Your task to perform on an android device: Show me popular videos on Youtube Image 0: 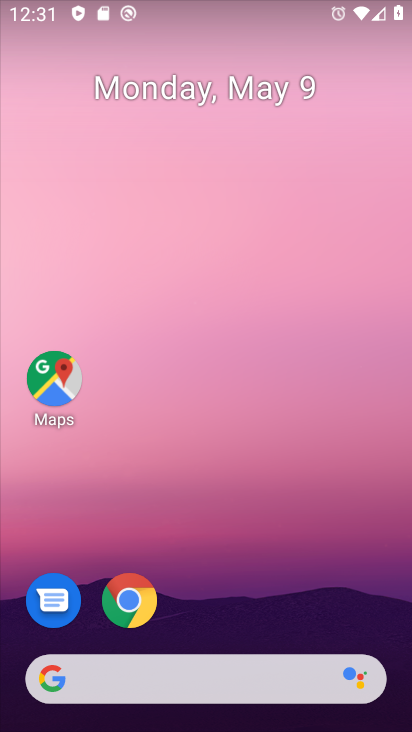
Step 0: drag from (176, 596) to (160, 93)
Your task to perform on an android device: Show me popular videos on Youtube Image 1: 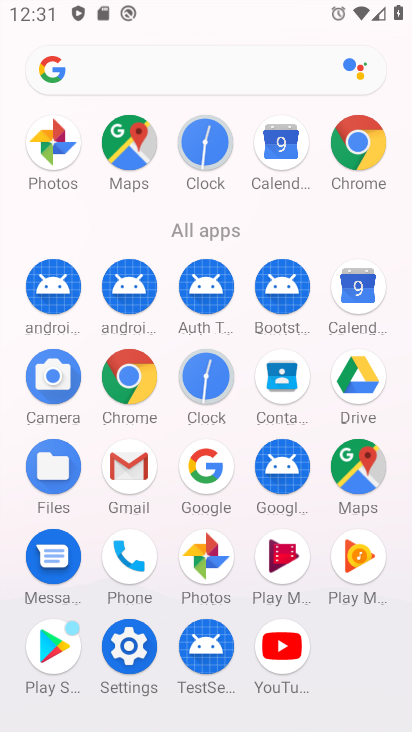
Step 1: drag from (187, 562) to (187, 182)
Your task to perform on an android device: Show me popular videos on Youtube Image 2: 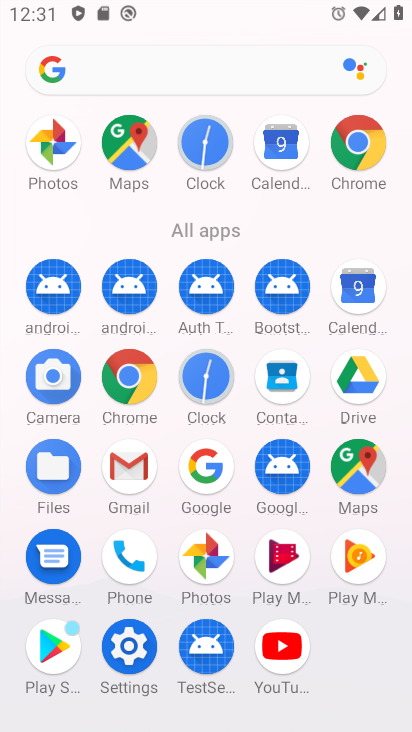
Step 2: click (283, 649)
Your task to perform on an android device: Show me popular videos on Youtube Image 3: 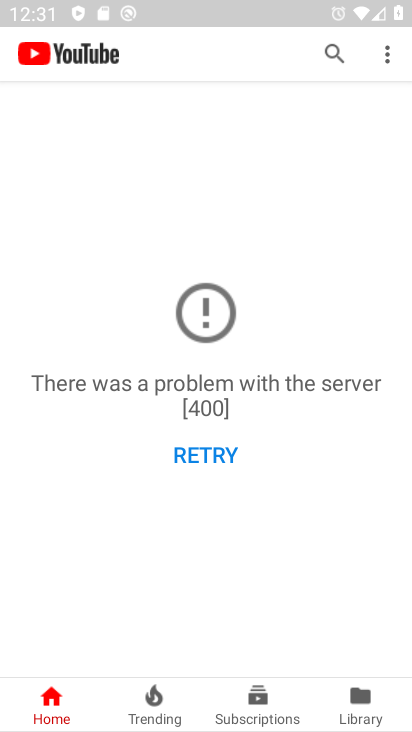
Step 3: click (193, 453)
Your task to perform on an android device: Show me popular videos on Youtube Image 4: 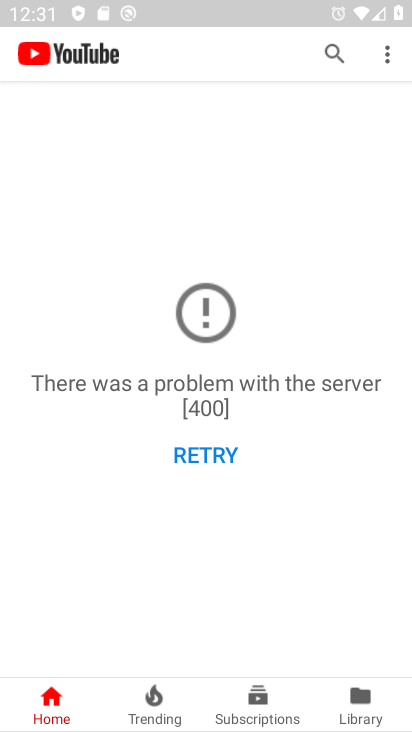
Step 4: click (191, 454)
Your task to perform on an android device: Show me popular videos on Youtube Image 5: 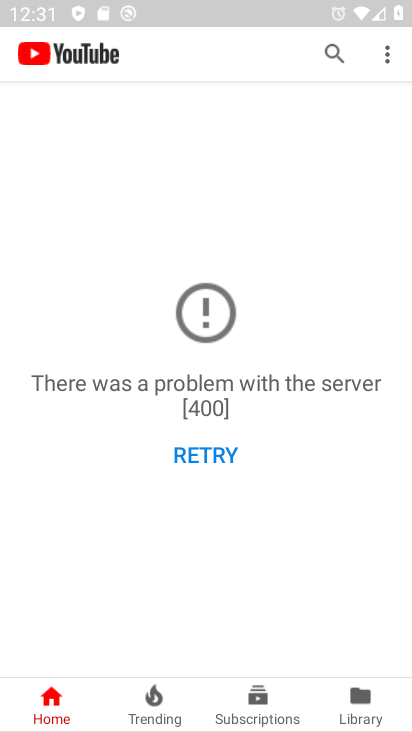
Step 5: click (190, 452)
Your task to perform on an android device: Show me popular videos on Youtube Image 6: 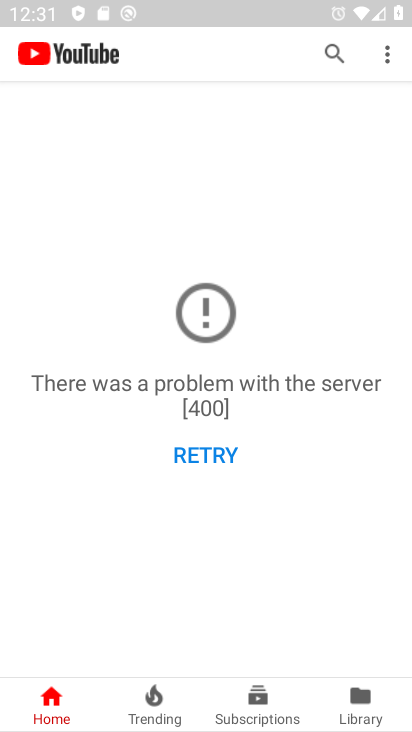
Step 6: click (190, 452)
Your task to perform on an android device: Show me popular videos on Youtube Image 7: 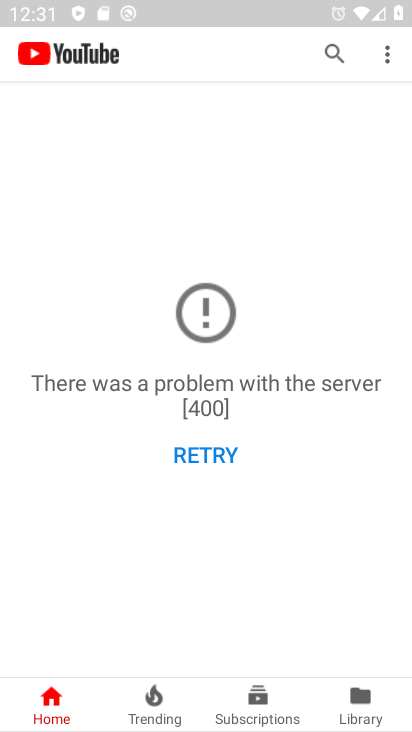
Step 7: click (190, 452)
Your task to perform on an android device: Show me popular videos on Youtube Image 8: 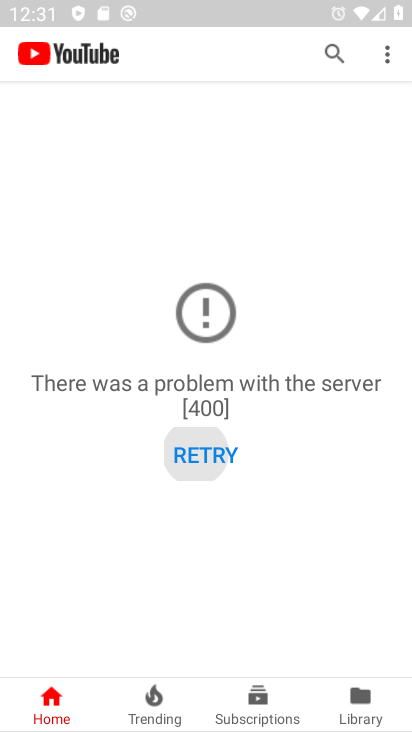
Step 8: click (189, 451)
Your task to perform on an android device: Show me popular videos on Youtube Image 9: 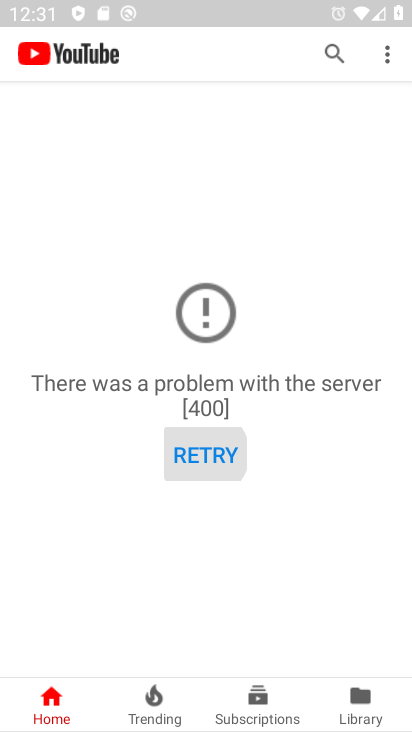
Step 9: click (189, 450)
Your task to perform on an android device: Show me popular videos on Youtube Image 10: 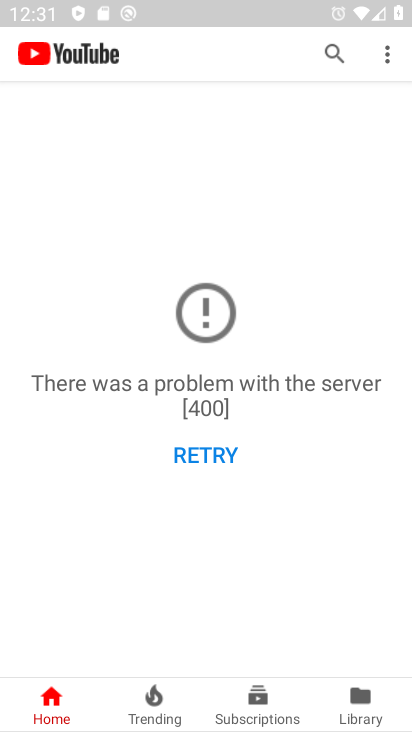
Step 10: click (189, 450)
Your task to perform on an android device: Show me popular videos on Youtube Image 11: 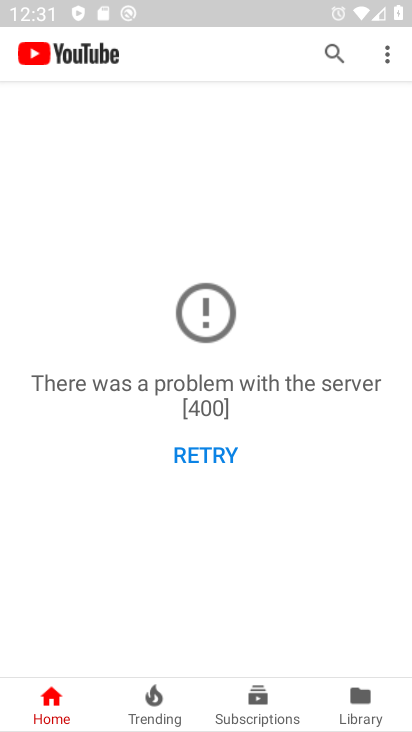
Step 11: click (189, 450)
Your task to perform on an android device: Show me popular videos on Youtube Image 12: 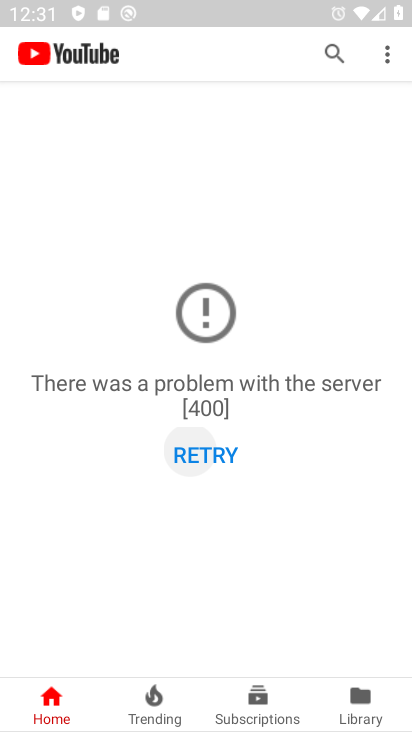
Step 12: click (189, 449)
Your task to perform on an android device: Show me popular videos on Youtube Image 13: 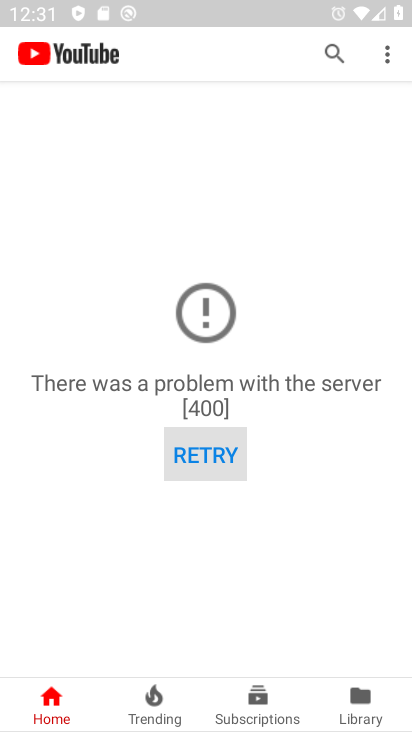
Step 13: click (188, 448)
Your task to perform on an android device: Show me popular videos on Youtube Image 14: 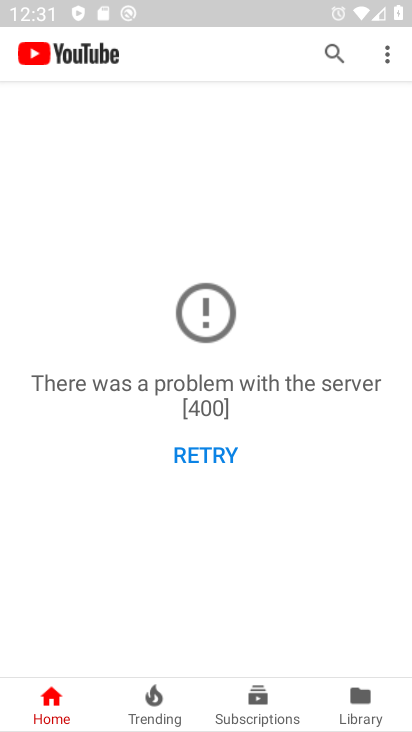
Step 14: click (187, 448)
Your task to perform on an android device: Show me popular videos on Youtube Image 15: 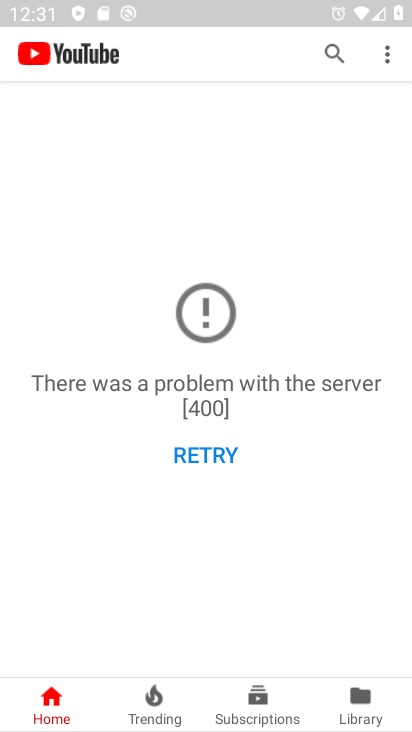
Step 15: click (187, 448)
Your task to perform on an android device: Show me popular videos on Youtube Image 16: 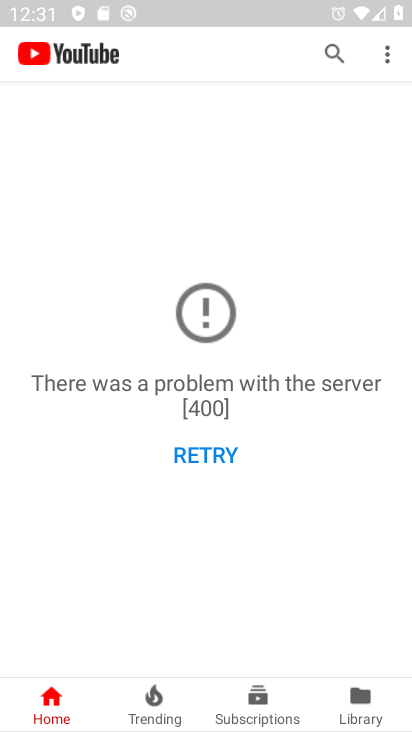
Step 16: click (331, 690)
Your task to perform on an android device: Show me popular videos on Youtube Image 17: 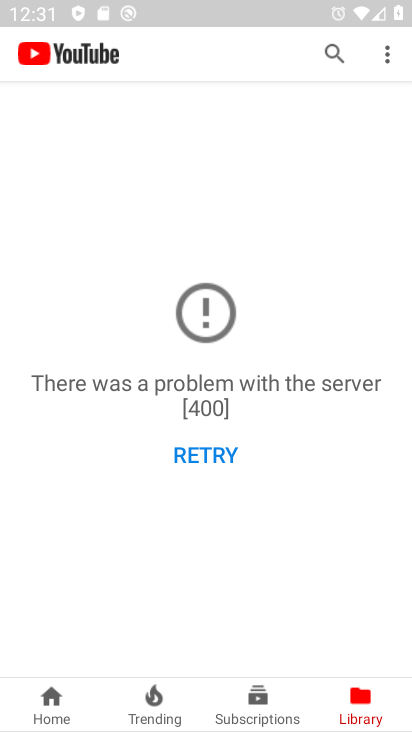
Step 17: click (323, 687)
Your task to perform on an android device: Show me popular videos on Youtube Image 18: 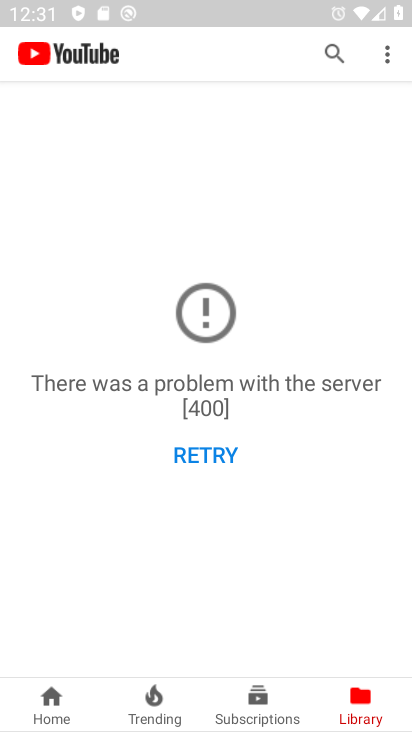
Step 18: click (79, 707)
Your task to perform on an android device: Show me popular videos on Youtube Image 19: 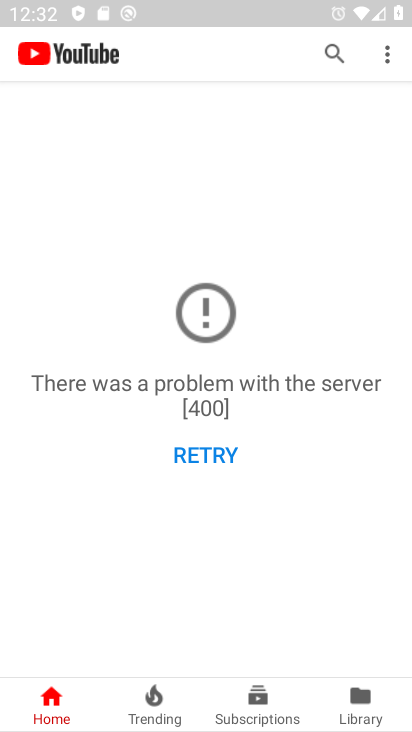
Step 19: press home button
Your task to perform on an android device: Show me popular videos on Youtube Image 20: 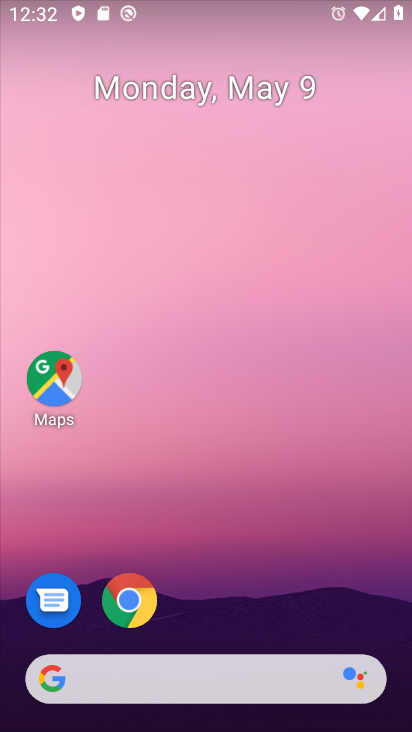
Step 20: drag from (55, 697) to (180, 8)
Your task to perform on an android device: Show me popular videos on Youtube Image 21: 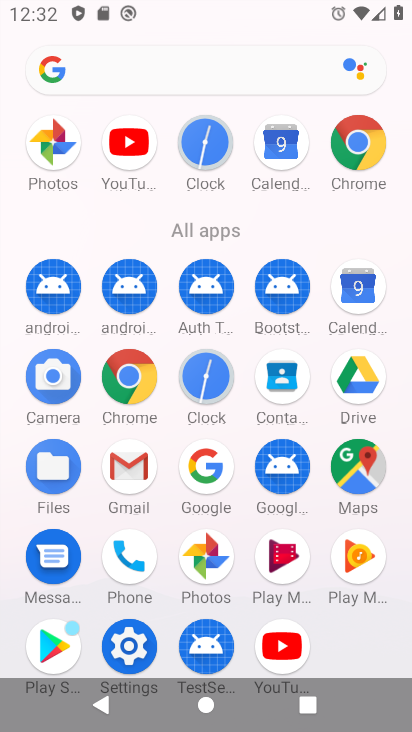
Step 21: drag from (269, 677) to (269, 611)
Your task to perform on an android device: Show me popular videos on Youtube Image 22: 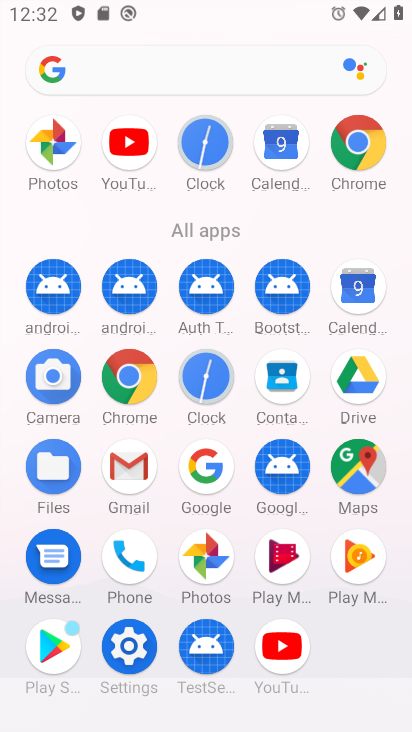
Step 22: click (282, 652)
Your task to perform on an android device: Show me popular videos on Youtube Image 23: 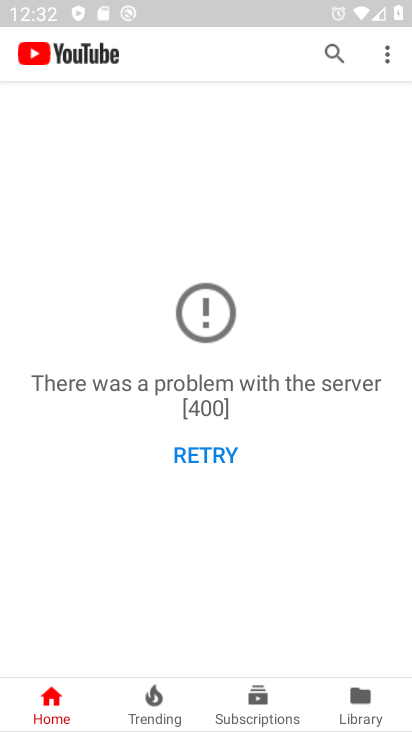
Step 23: click (210, 456)
Your task to perform on an android device: Show me popular videos on Youtube Image 24: 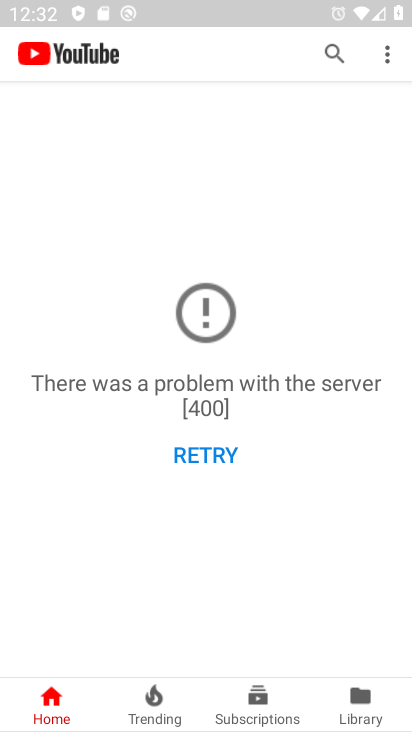
Step 24: click (210, 456)
Your task to perform on an android device: Show me popular videos on Youtube Image 25: 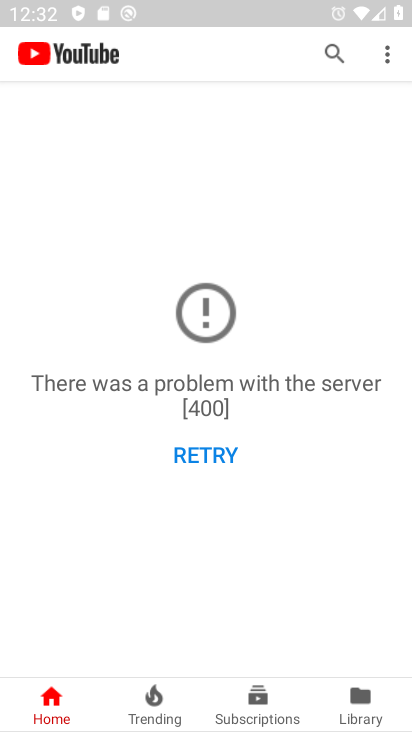
Step 25: click (210, 456)
Your task to perform on an android device: Show me popular videos on Youtube Image 26: 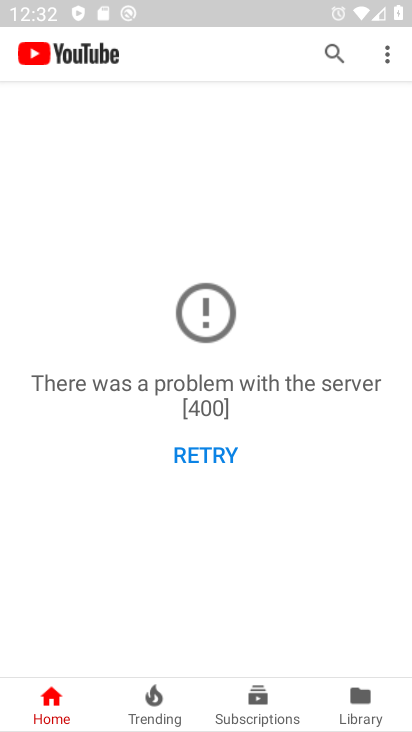
Step 26: click (210, 456)
Your task to perform on an android device: Show me popular videos on Youtube Image 27: 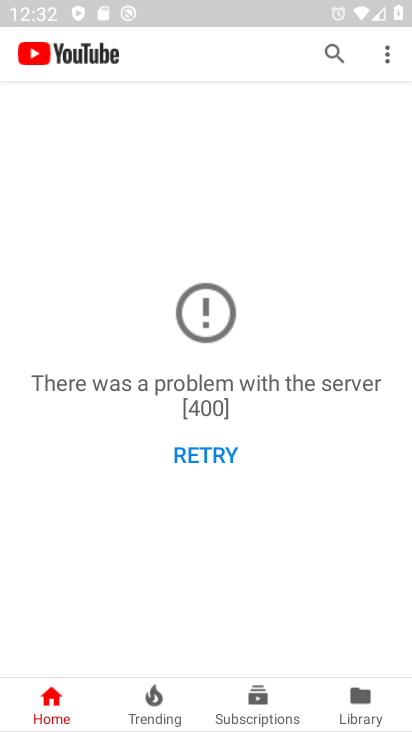
Step 27: click (210, 456)
Your task to perform on an android device: Show me popular videos on Youtube Image 28: 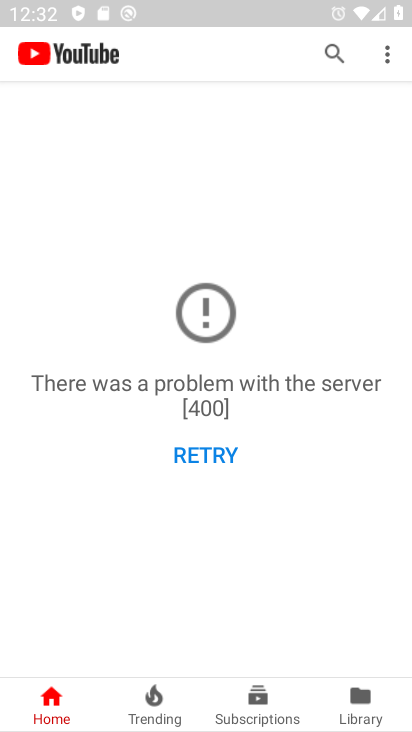
Step 28: press home button
Your task to perform on an android device: Show me popular videos on Youtube Image 29: 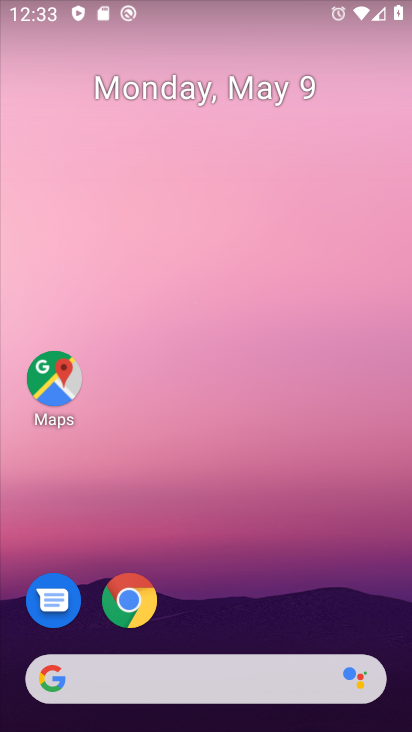
Step 29: drag from (204, 635) to (323, 177)
Your task to perform on an android device: Show me popular videos on Youtube Image 30: 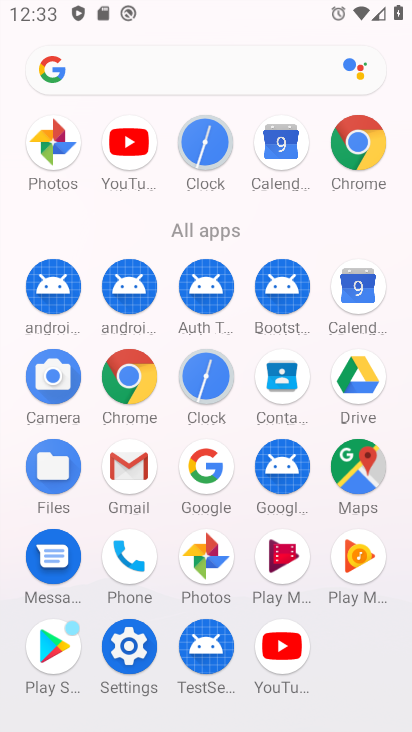
Step 30: click (108, 152)
Your task to perform on an android device: Show me popular videos on Youtube Image 31: 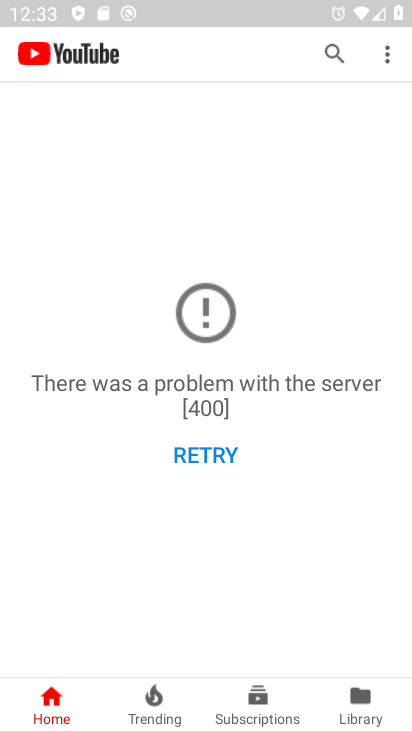
Step 31: click (202, 438)
Your task to perform on an android device: Show me popular videos on Youtube Image 32: 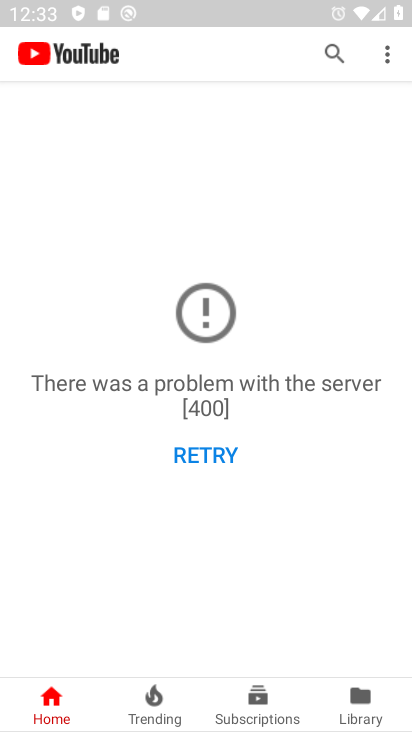
Step 32: click (326, 46)
Your task to perform on an android device: Show me popular videos on Youtube Image 33: 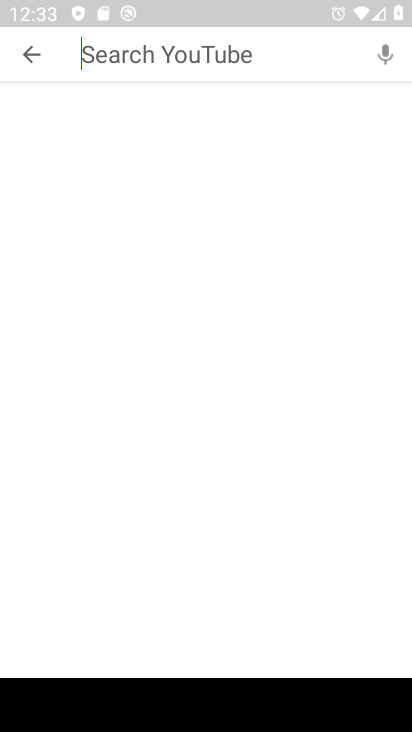
Step 33: click (297, 44)
Your task to perform on an android device: Show me popular videos on Youtube Image 34: 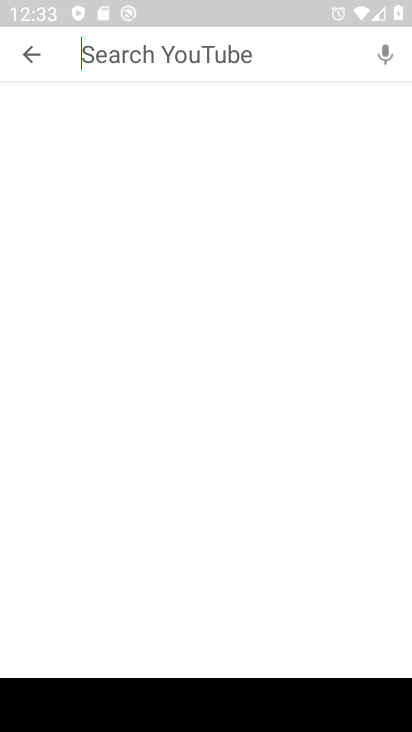
Step 34: type "popular video"
Your task to perform on an android device: Show me popular videos on Youtube Image 35: 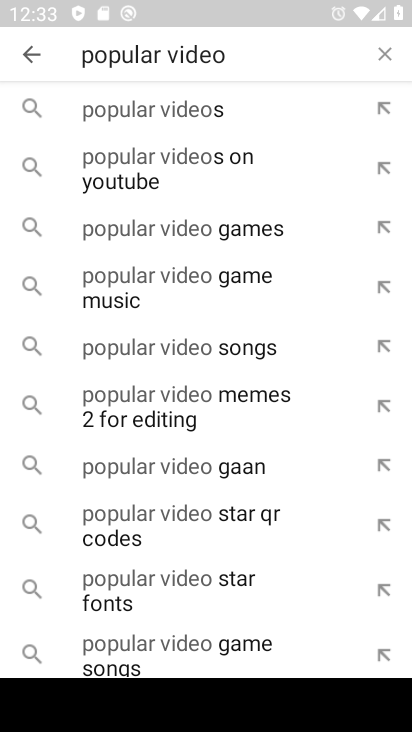
Step 35: type "popular video"
Your task to perform on an android device: Show me popular videos on Youtube Image 36: 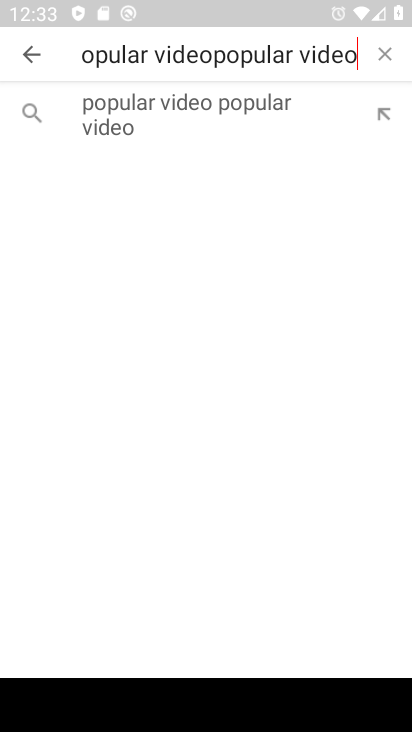
Step 36: type ""
Your task to perform on an android device: Show me popular videos on Youtube Image 37: 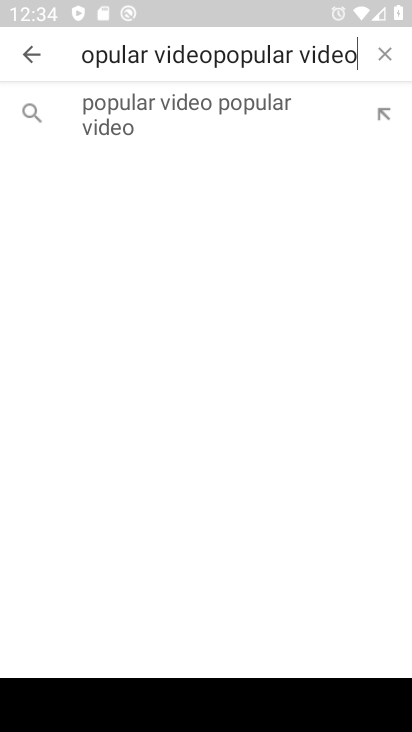
Step 37: click (354, 46)
Your task to perform on an android device: Show me popular videos on Youtube Image 38: 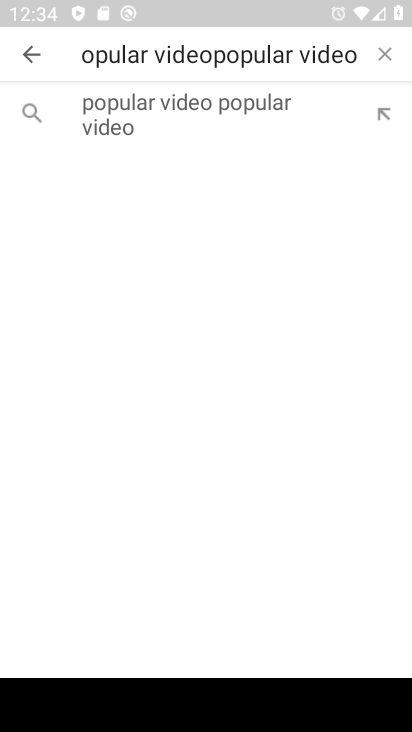
Step 38: click (389, 51)
Your task to perform on an android device: Show me popular videos on Youtube Image 39: 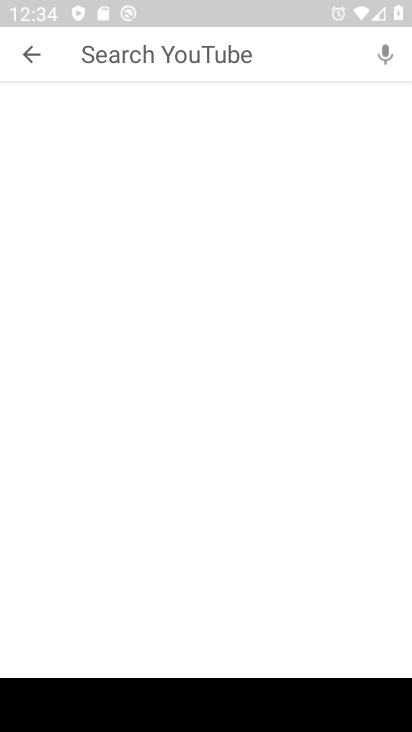
Step 39: click (389, 51)
Your task to perform on an android device: Show me popular videos on Youtube Image 40: 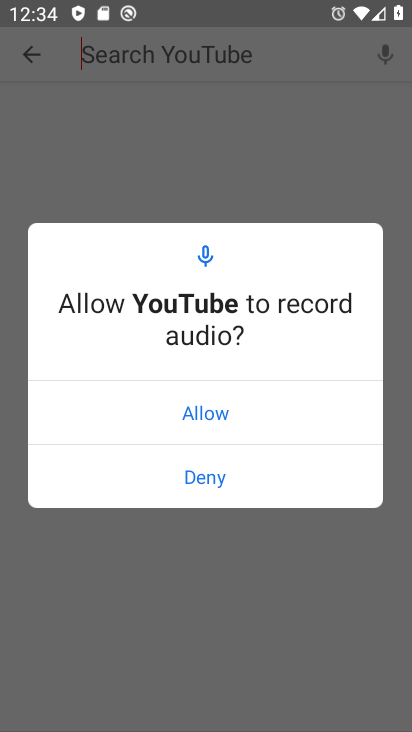
Step 40: click (256, 476)
Your task to perform on an android device: Show me popular videos on Youtube Image 41: 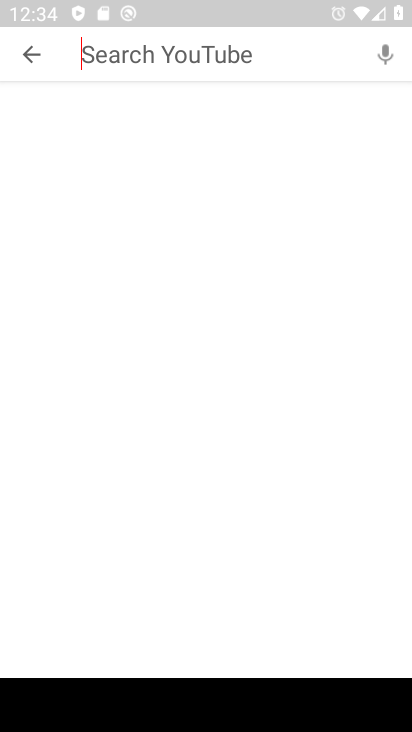
Step 41: type "popular videos"
Your task to perform on an android device: Show me popular videos on Youtube Image 42: 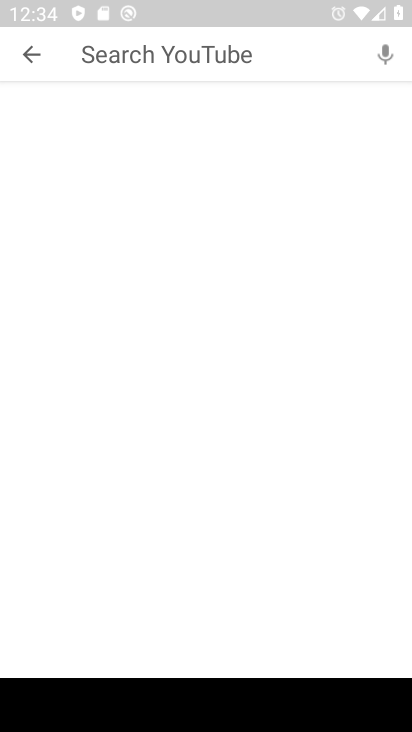
Step 42: click (257, 50)
Your task to perform on an android device: Show me popular videos on Youtube Image 43: 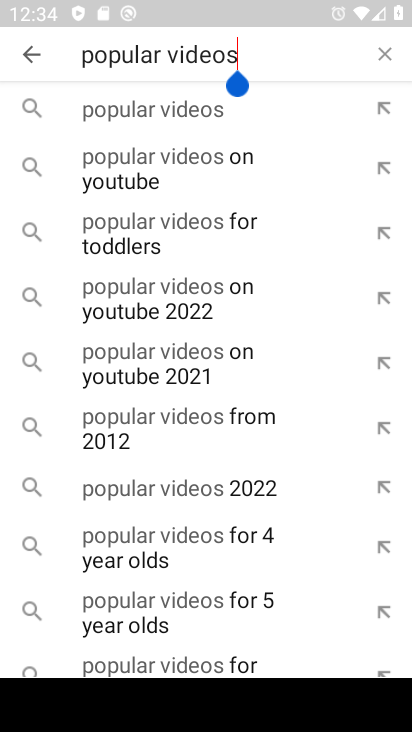
Step 43: click (250, 111)
Your task to perform on an android device: Show me popular videos on Youtube Image 44: 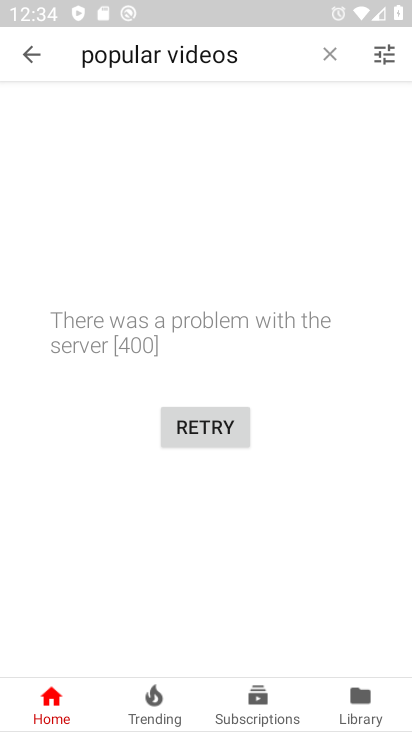
Step 44: click (226, 424)
Your task to perform on an android device: Show me popular videos on Youtube Image 45: 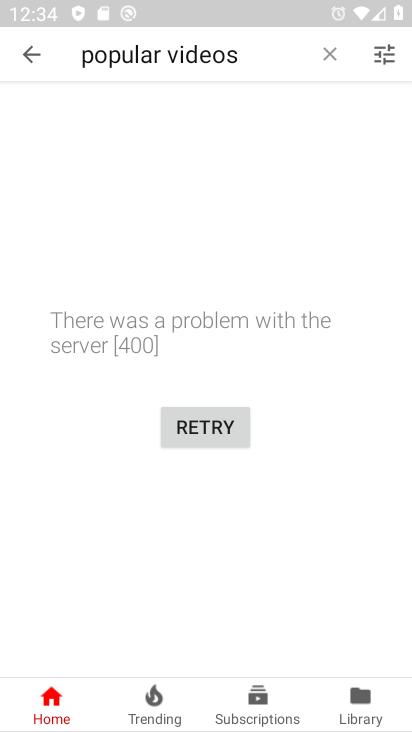
Step 45: click (225, 425)
Your task to perform on an android device: Show me popular videos on Youtube Image 46: 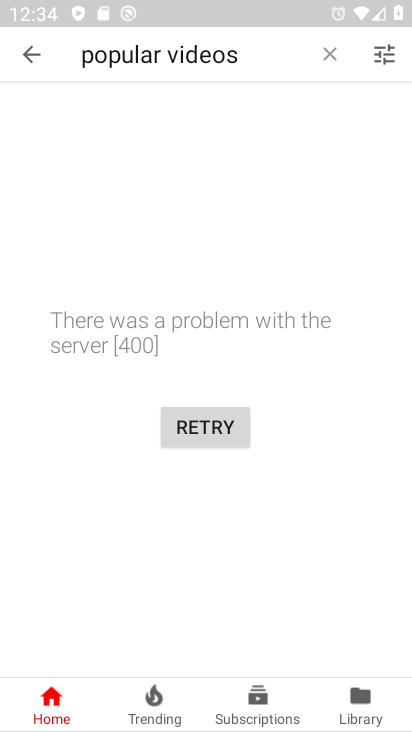
Step 46: task complete